Your task to perform on an android device: Open the phone app and click the voicemail tab. Image 0: 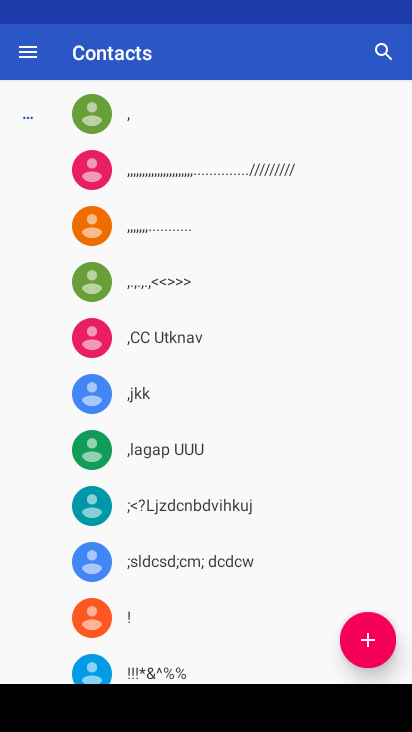
Step 0: press home button
Your task to perform on an android device: Open the phone app and click the voicemail tab. Image 1: 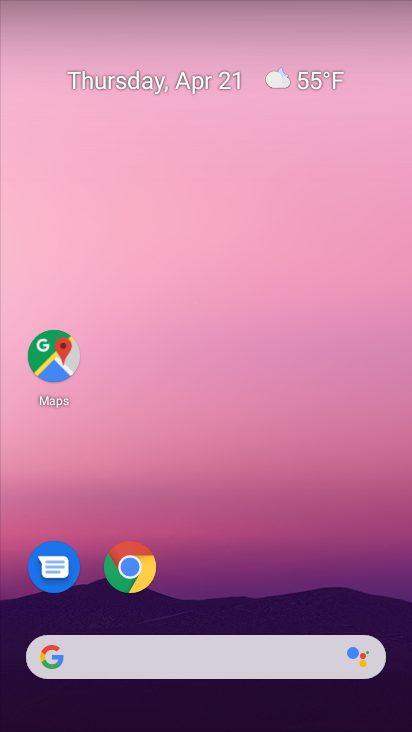
Step 1: drag from (330, 602) to (248, 25)
Your task to perform on an android device: Open the phone app and click the voicemail tab. Image 2: 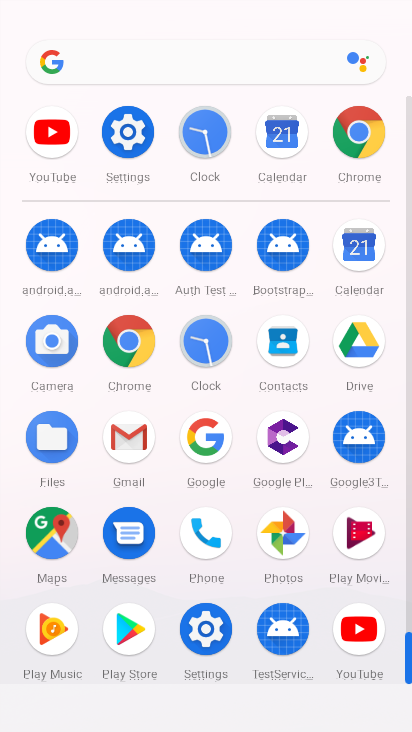
Step 2: click (210, 537)
Your task to perform on an android device: Open the phone app and click the voicemail tab. Image 3: 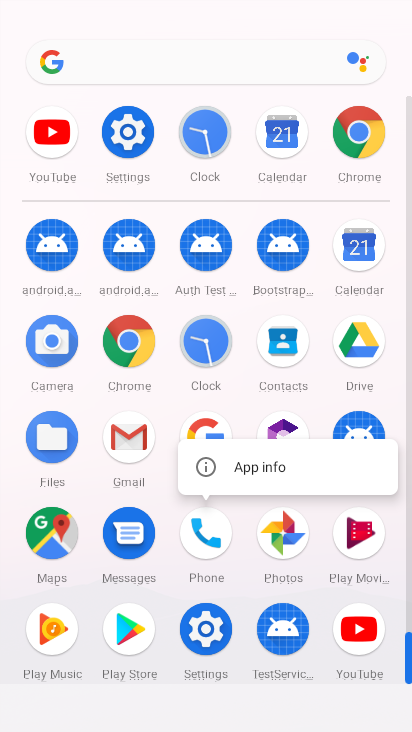
Step 3: click (199, 537)
Your task to perform on an android device: Open the phone app and click the voicemail tab. Image 4: 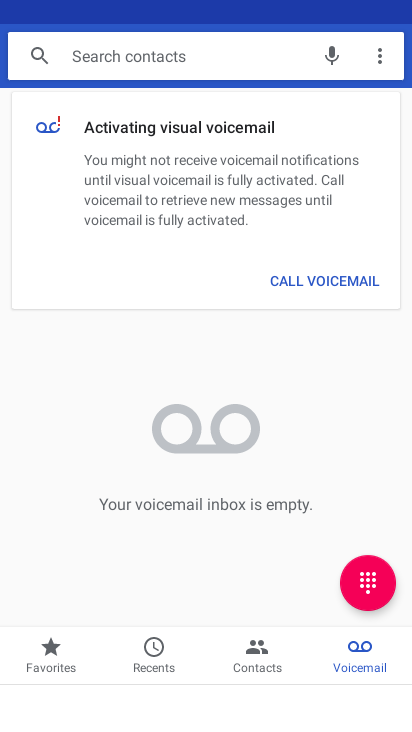
Step 4: task complete